Your task to perform on an android device: change the clock display to analog Image 0: 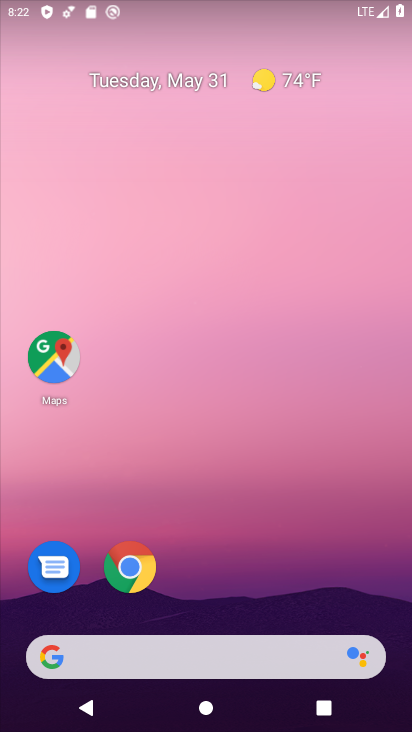
Step 0: drag from (278, 712) to (304, 281)
Your task to perform on an android device: change the clock display to analog Image 1: 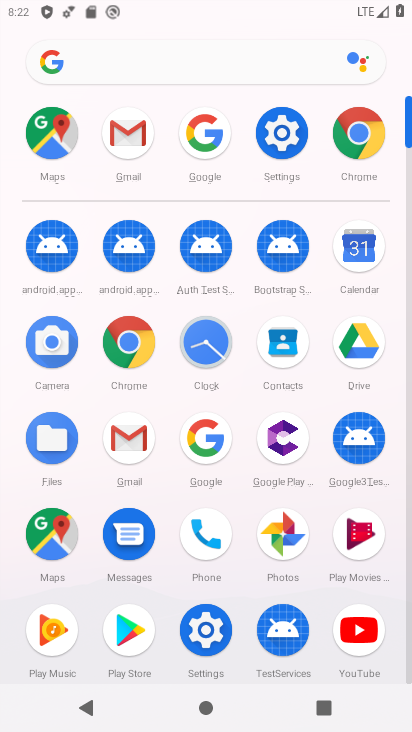
Step 1: click (204, 344)
Your task to perform on an android device: change the clock display to analog Image 2: 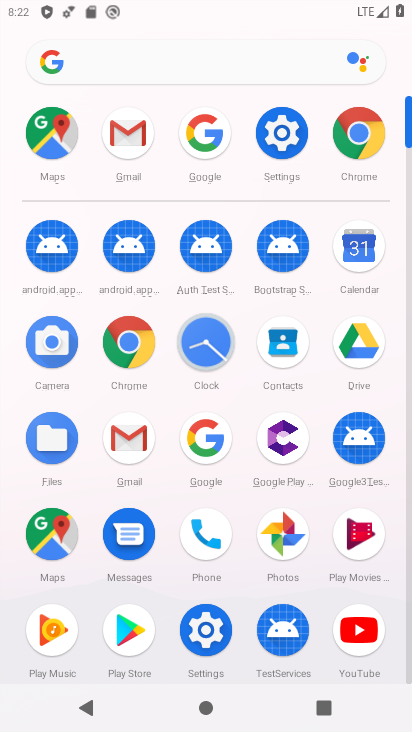
Step 2: click (204, 344)
Your task to perform on an android device: change the clock display to analog Image 3: 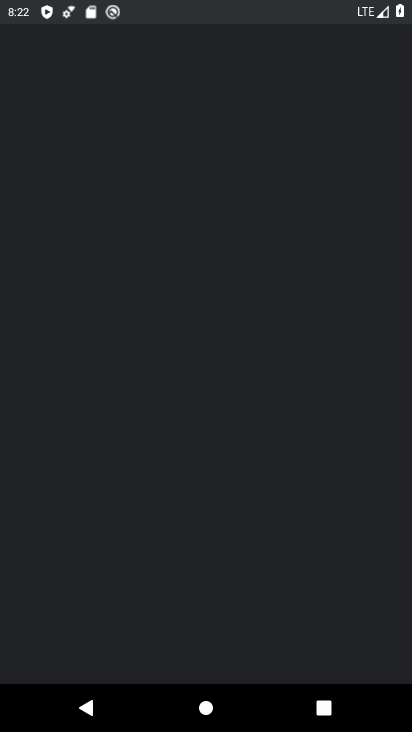
Step 3: click (205, 343)
Your task to perform on an android device: change the clock display to analog Image 4: 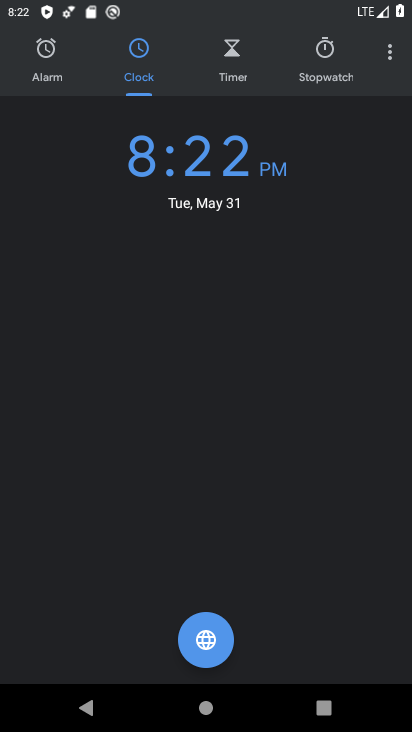
Step 4: click (390, 54)
Your task to perform on an android device: change the clock display to analog Image 5: 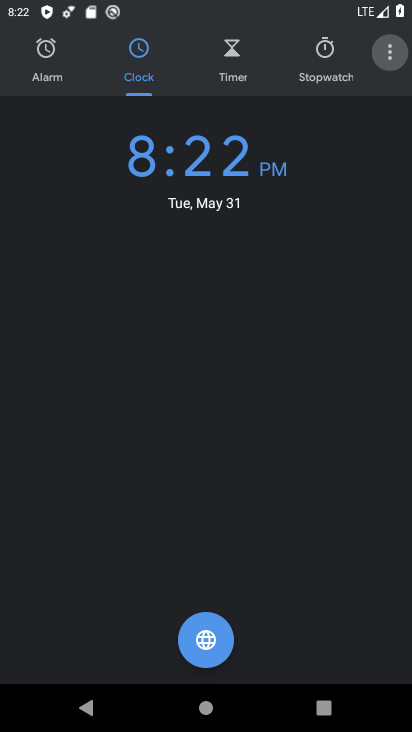
Step 5: click (390, 55)
Your task to perform on an android device: change the clock display to analog Image 6: 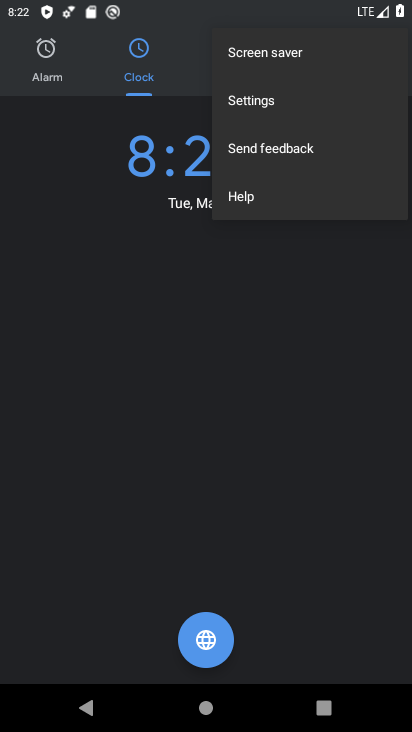
Step 6: click (267, 101)
Your task to perform on an android device: change the clock display to analog Image 7: 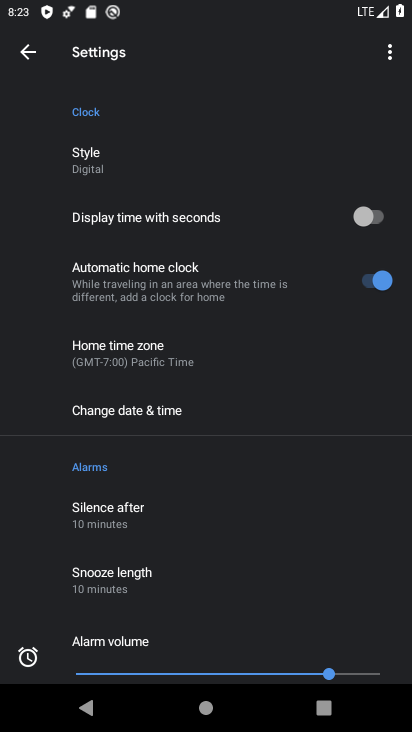
Step 7: click (104, 158)
Your task to perform on an android device: change the clock display to analog Image 8: 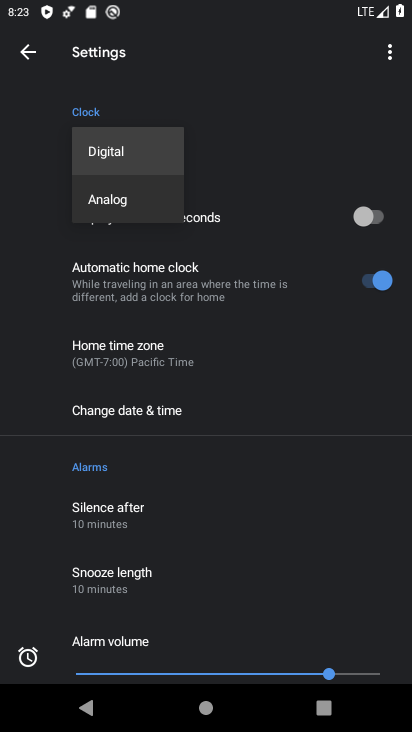
Step 8: click (126, 207)
Your task to perform on an android device: change the clock display to analog Image 9: 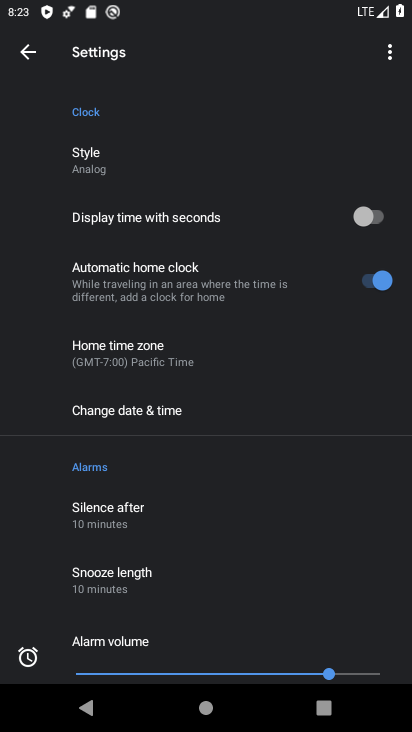
Step 9: task complete